Your task to perform on an android device: Do I have any events tomorrow? Image 0: 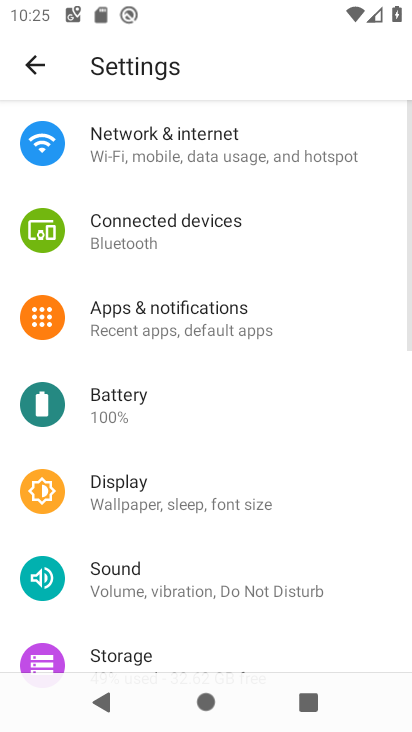
Step 0: press home button
Your task to perform on an android device: Do I have any events tomorrow? Image 1: 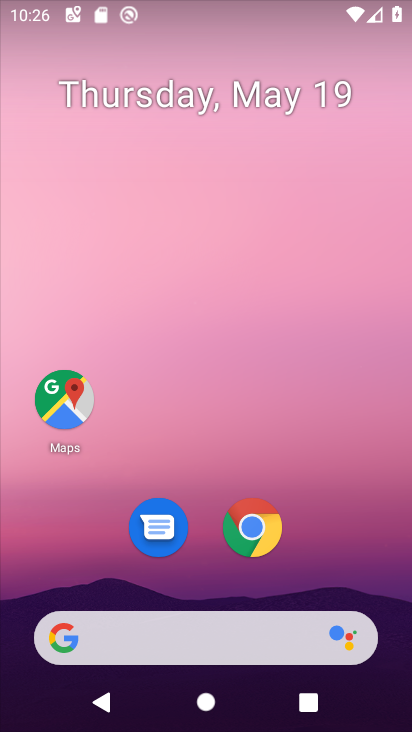
Step 1: drag from (341, 559) to (268, 123)
Your task to perform on an android device: Do I have any events tomorrow? Image 2: 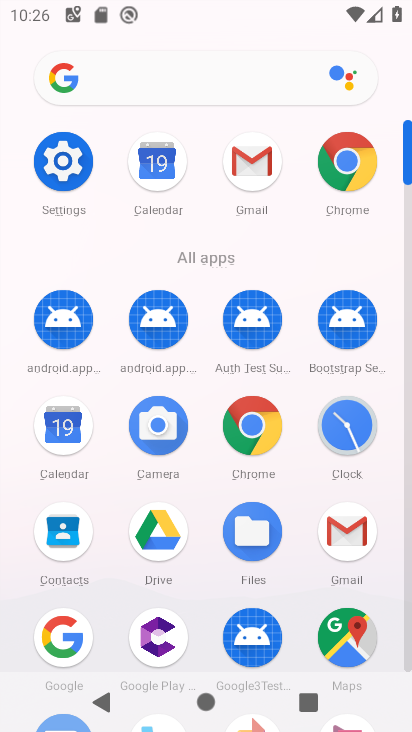
Step 2: click (70, 420)
Your task to perform on an android device: Do I have any events tomorrow? Image 3: 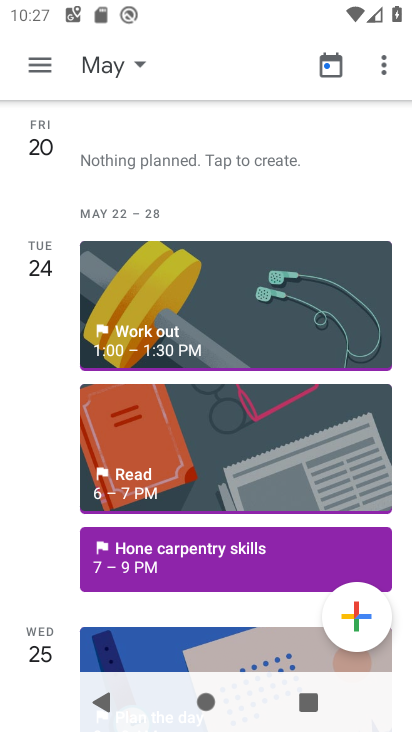
Step 3: click (45, 57)
Your task to perform on an android device: Do I have any events tomorrow? Image 4: 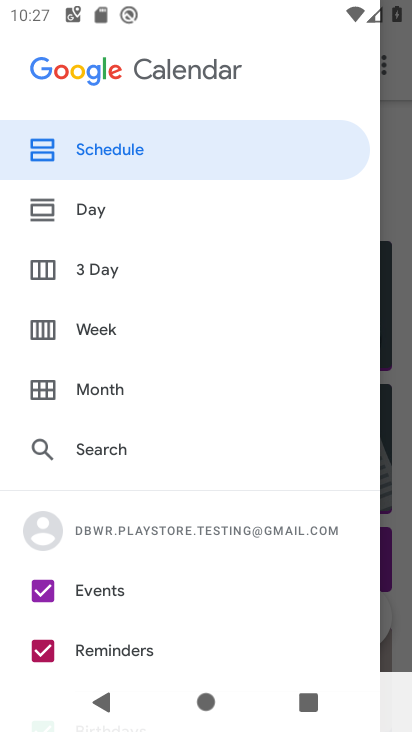
Step 4: click (150, 195)
Your task to perform on an android device: Do I have any events tomorrow? Image 5: 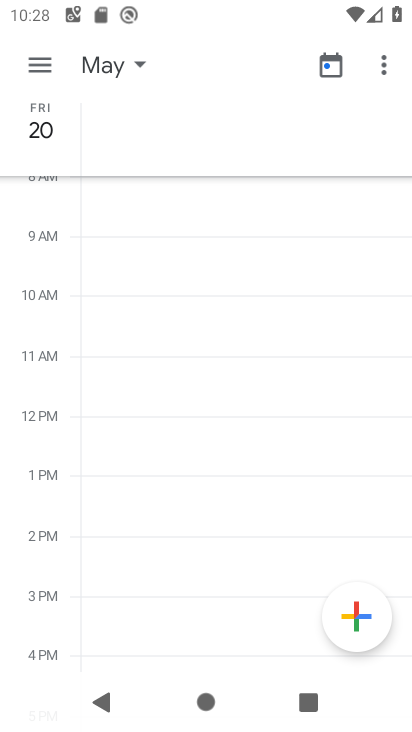
Step 5: click (134, 70)
Your task to perform on an android device: Do I have any events tomorrow? Image 6: 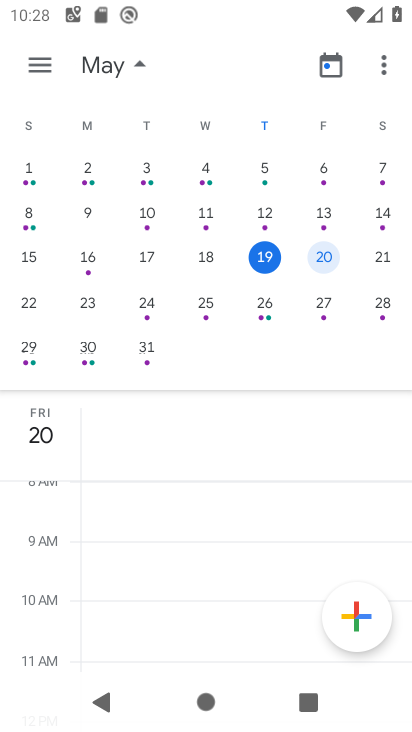
Step 6: click (322, 266)
Your task to perform on an android device: Do I have any events tomorrow? Image 7: 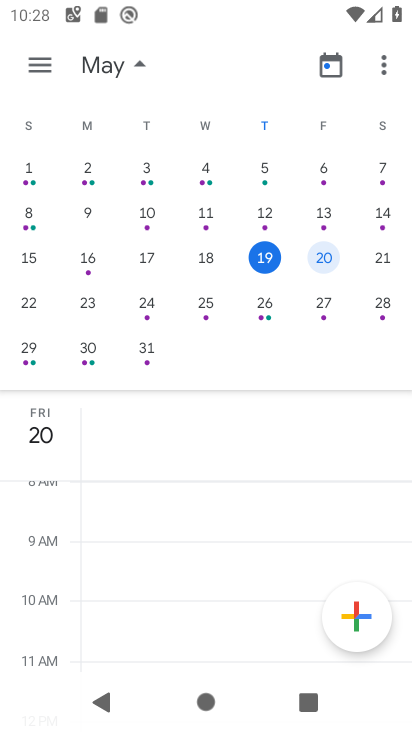
Step 7: click (384, 265)
Your task to perform on an android device: Do I have any events tomorrow? Image 8: 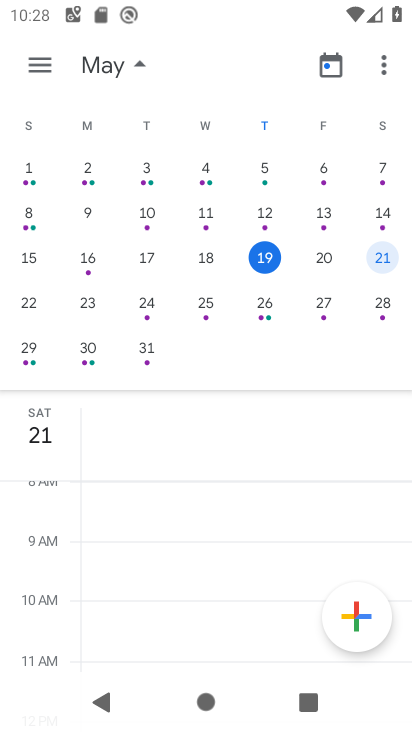
Step 8: click (128, 76)
Your task to perform on an android device: Do I have any events tomorrow? Image 9: 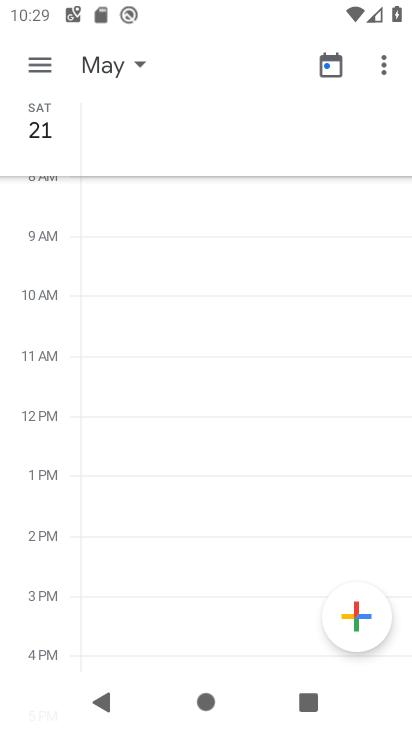
Step 9: task complete